Your task to perform on an android device: Go to accessibility settings Image 0: 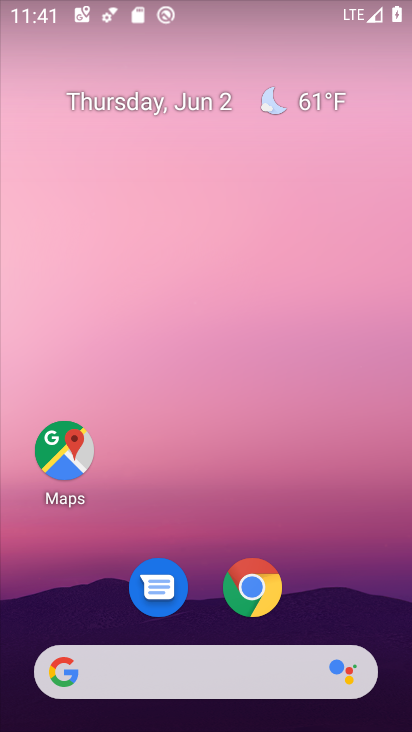
Step 0: drag from (218, 496) to (214, 2)
Your task to perform on an android device: Go to accessibility settings Image 1: 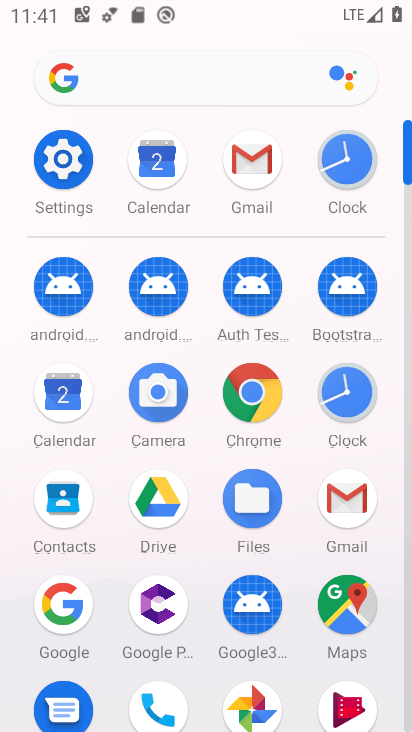
Step 1: click (59, 165)
Your task to perform on an android device: Go to accessibility settings Image 2: 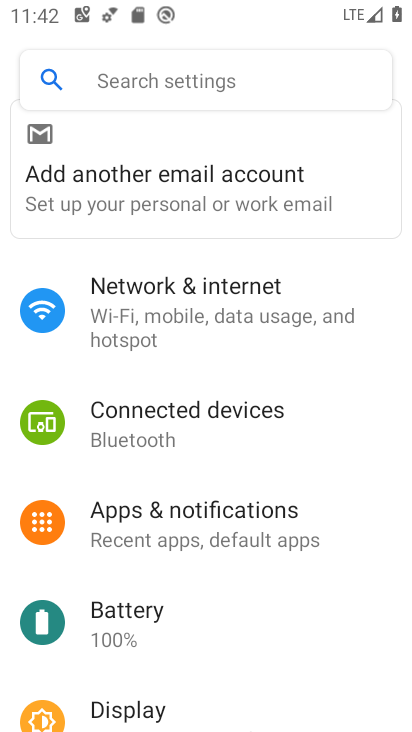
Step 2: drag from (238, 613) to (248, 0)
Your task to perform on an android device: Go to accessibility settings Image 3: 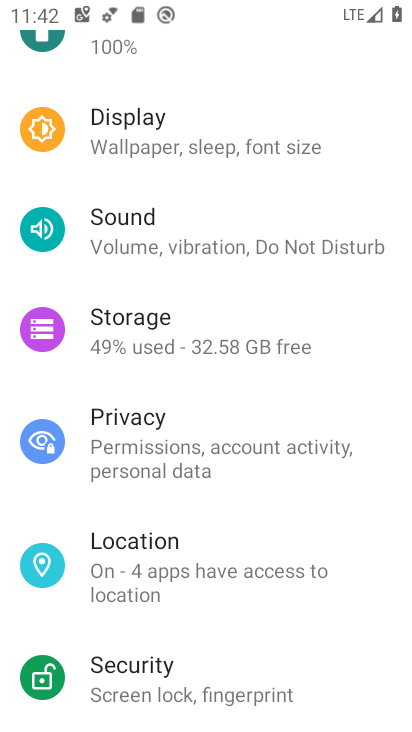
Step 3: drag from (257, 622) to (257, 146)
Your task to perform on an android device: Go to accessibility settings Image 4: 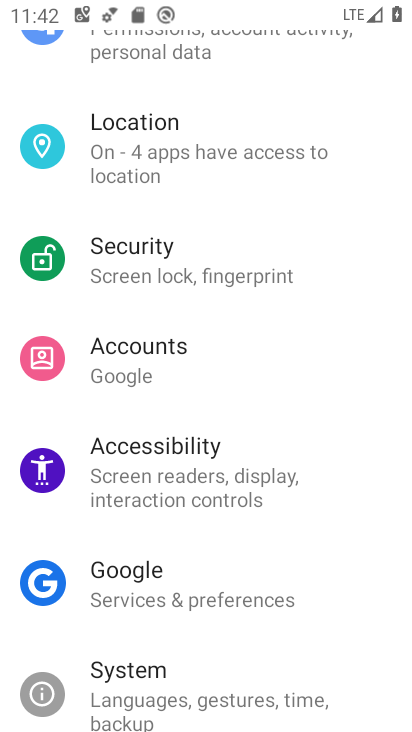
Step 4: click (207, 472)
Your task to perform on an android device: Go to accessibility settings Image 5: 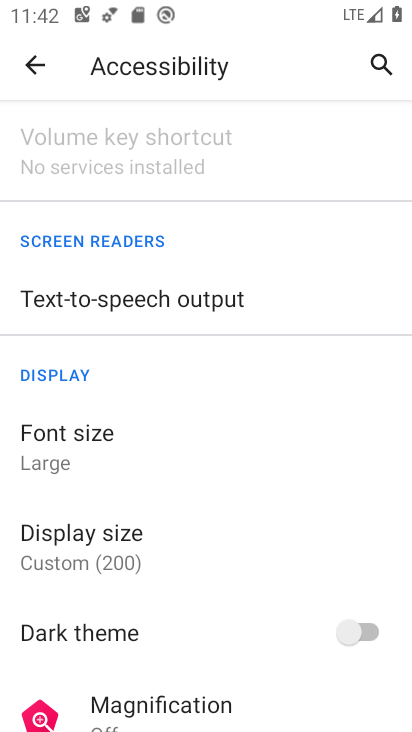
Step 5: task complete